Your task to perform on an android device: Clear the shopping cart on costco.com. Search for "razer naga" on costco.com, select the first entry, add it to the cart, then select checkout. Image 0: 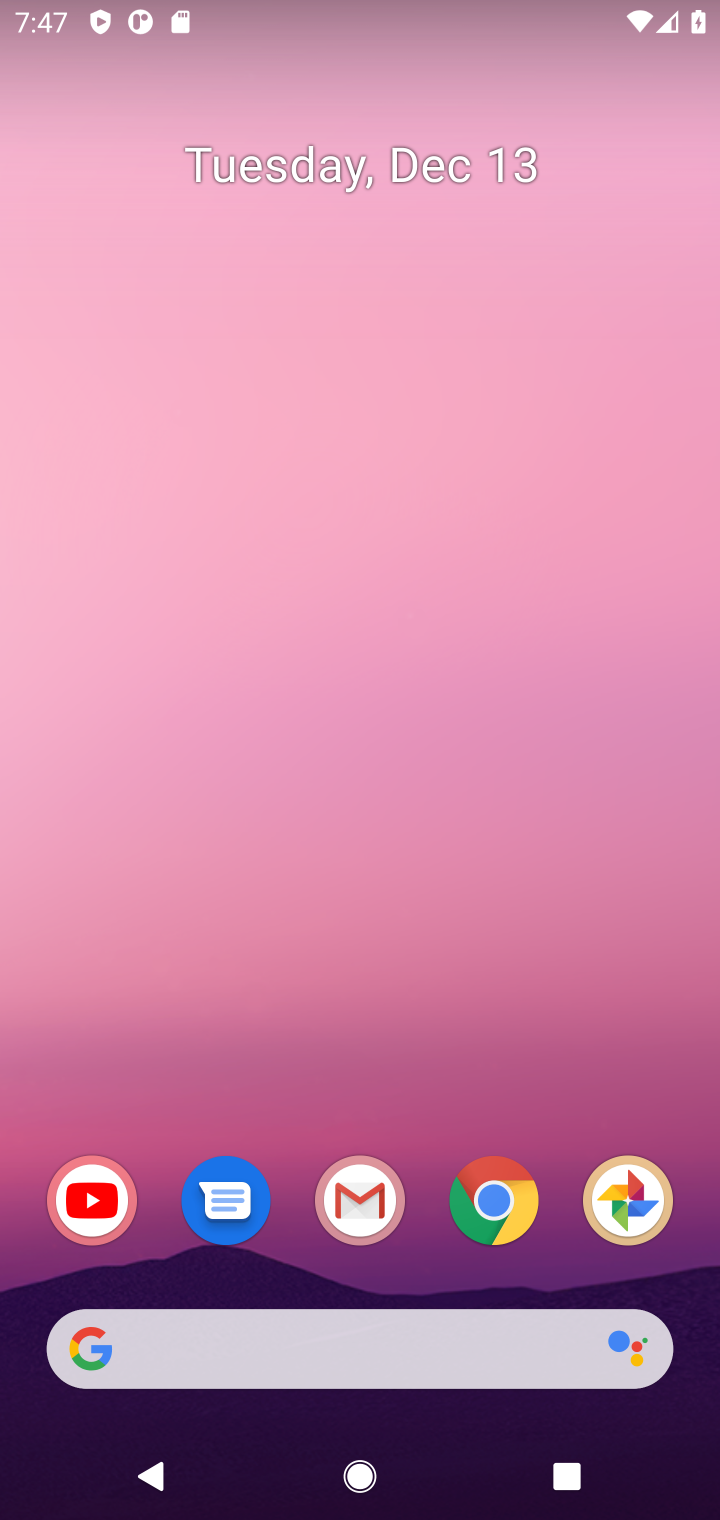
Step 0: click (324, 1317)
Your task to perform on an android device: Clear the shopping cart on costco.com. Search for "razer naga" on costco.com, select the first entry, add it to the cart, then select checkout. Image 1: 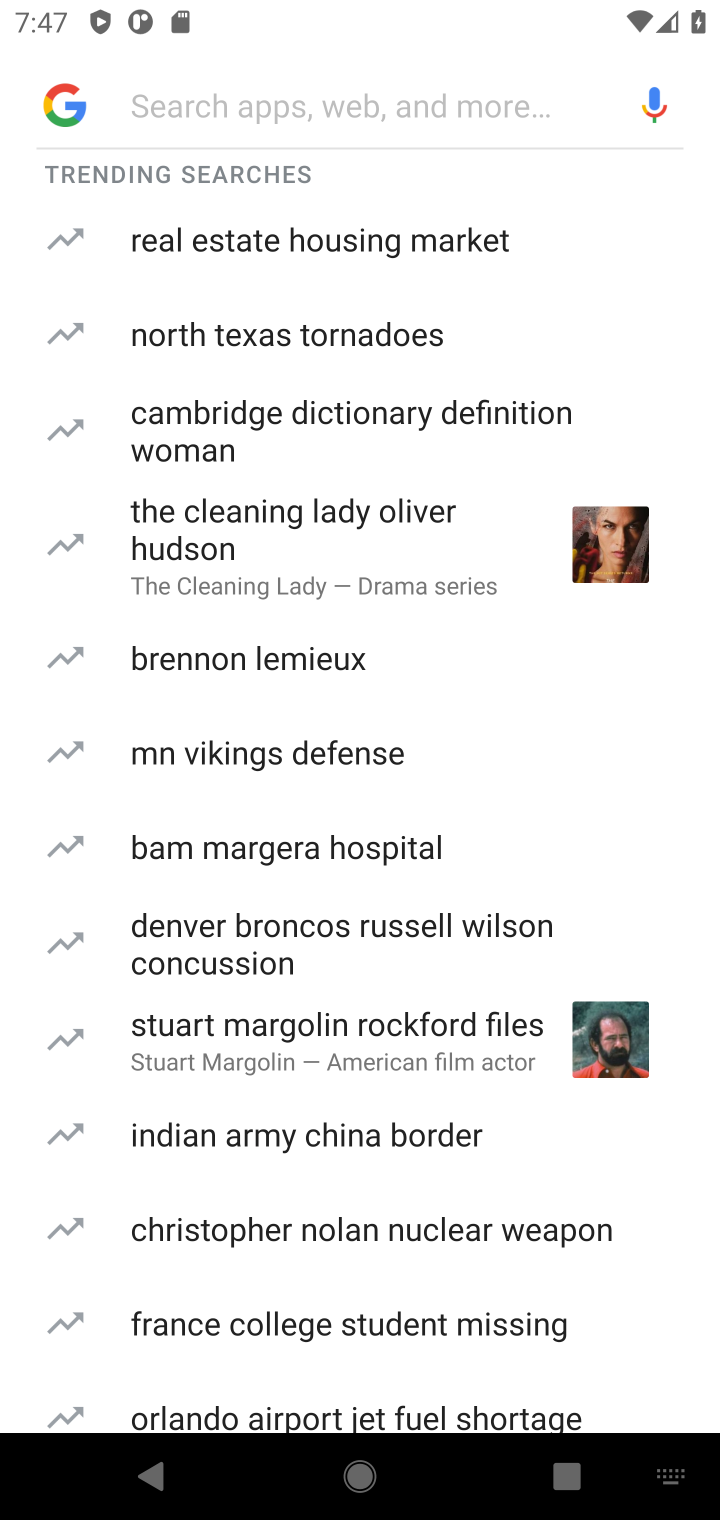
Step 1: type " costco.com"
Your task to perform on an android device: Clear the shopping cart on costco.com. Search for "razer naga" on costco.com, select the first entry, add it to the cart, then select checkout. Image 2: 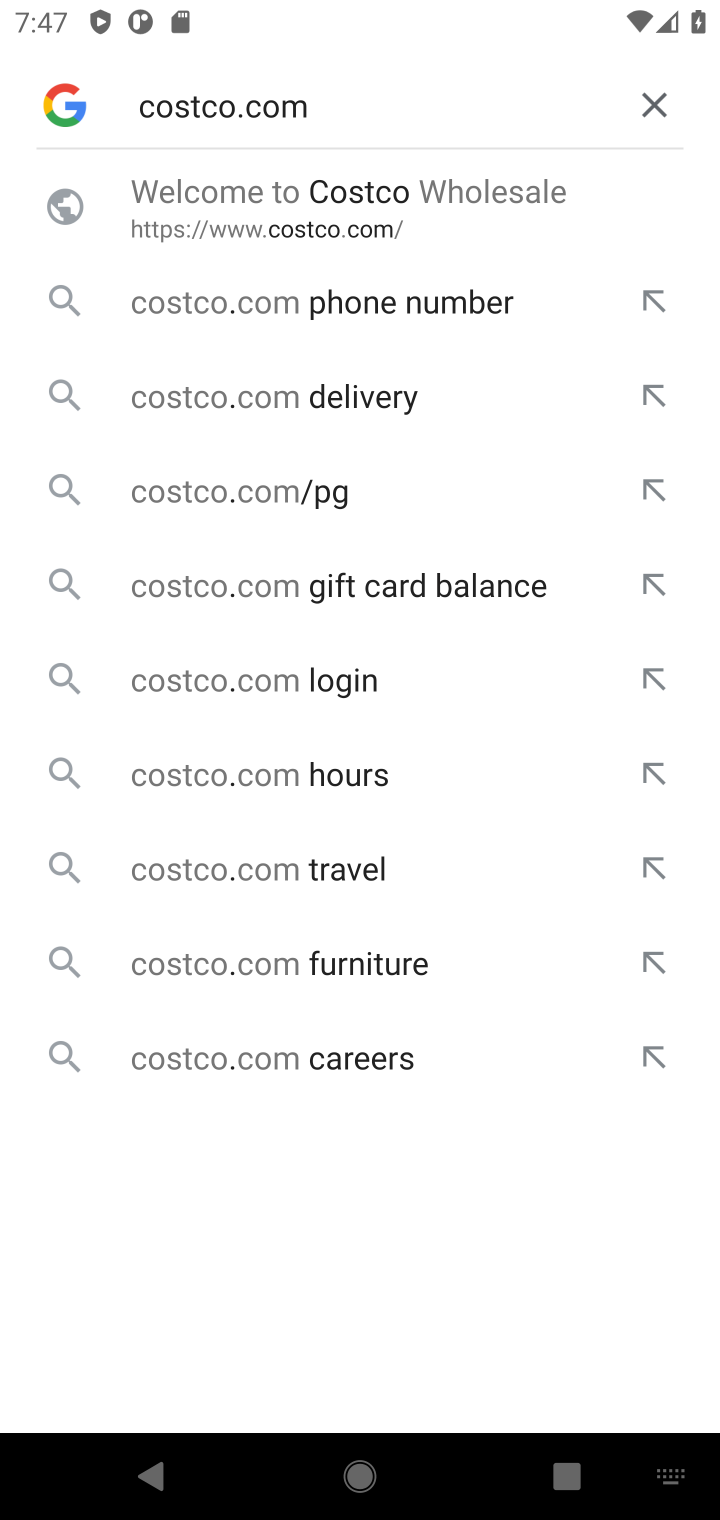
Step 2: click (328, 219)
Your task to perform on an android device: Clear the shopping cart on costco.com. Search for "razer naga" on costco.com, select the first entry, add it to the cart, then select checkout. Image 3: 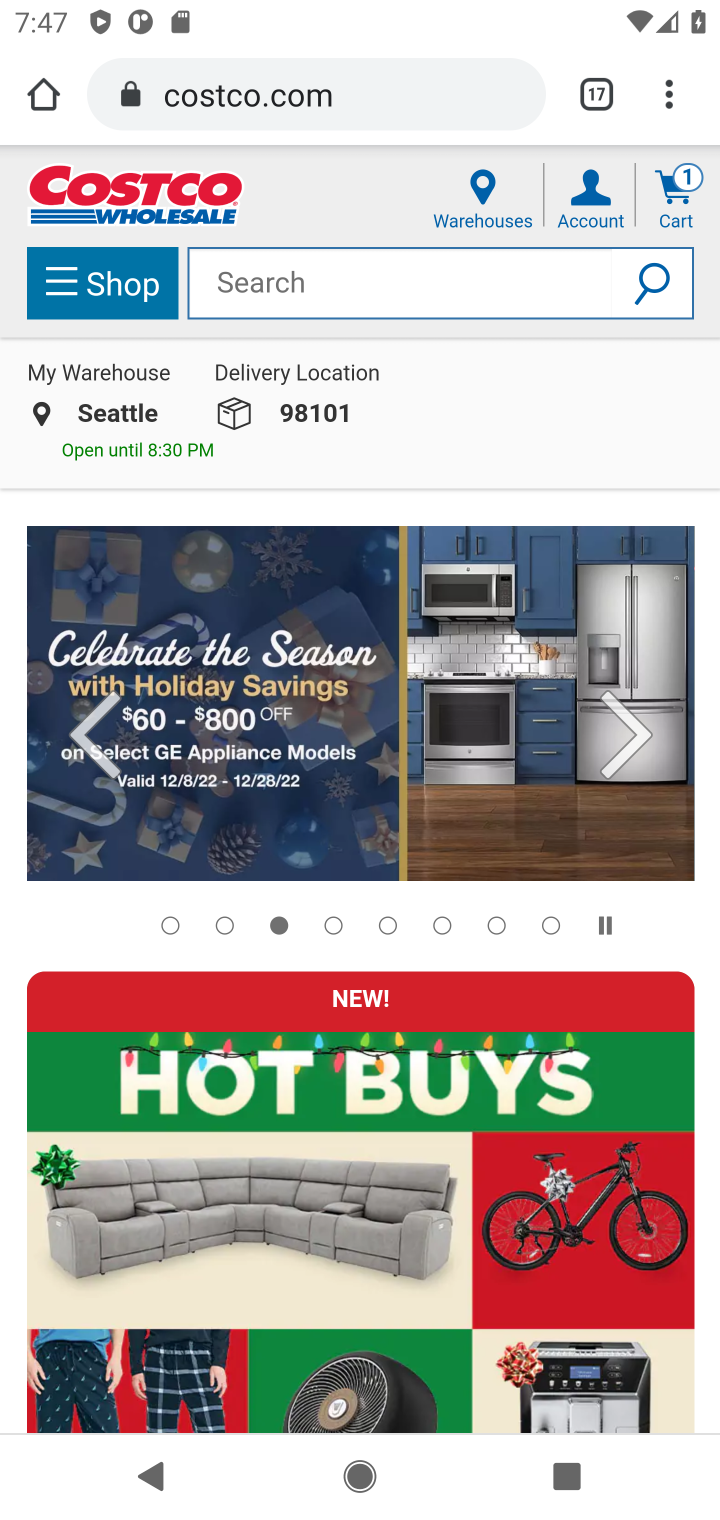
Step 3: click (459, 277)
Your task to perform on an android device: Clear the shopping cart on costco.com. Search for "razer naga" on costco.com, select the first entry, add it to the cart, then select checkout. Image 4: 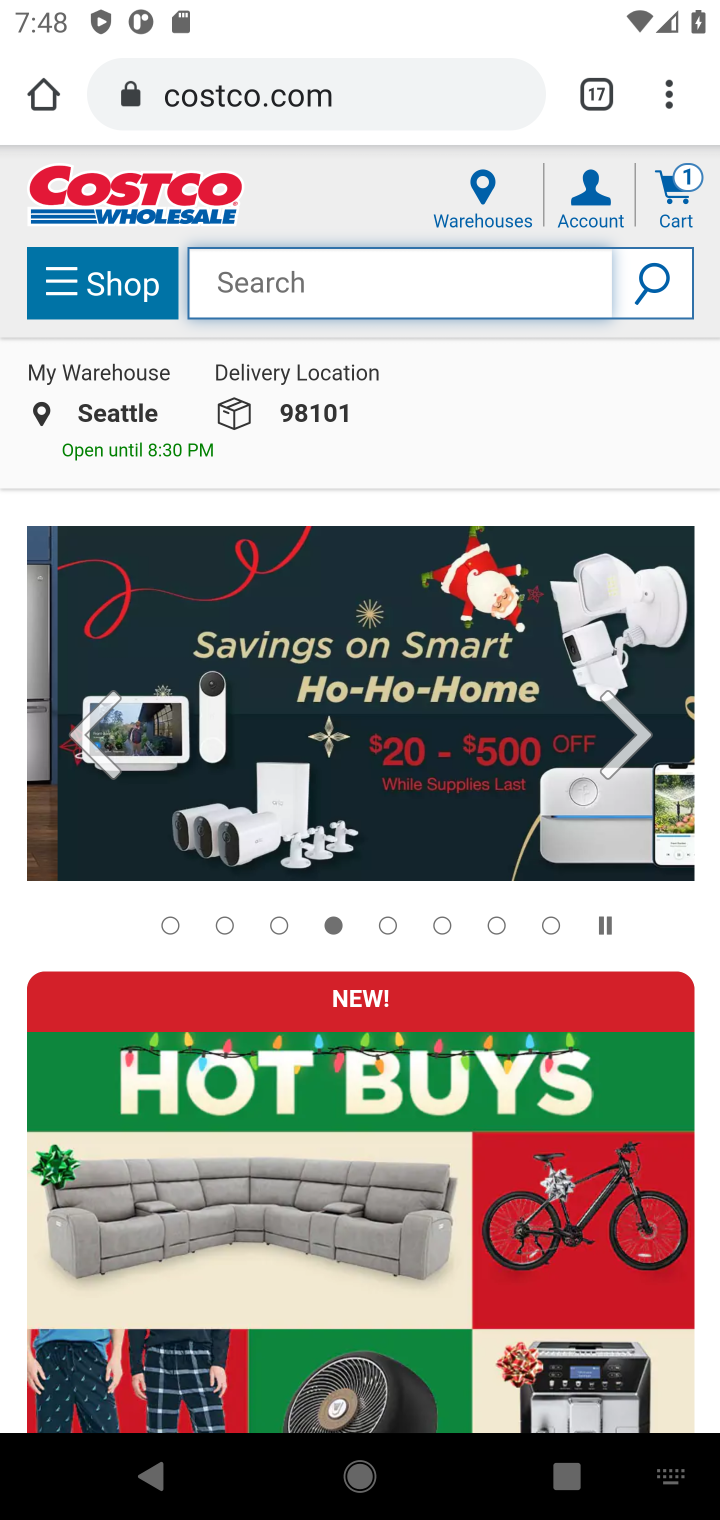
Step 4: type "razer naga"
Your task to perform on an android device: Clear the shopping cart on costco.com. Search for "razer naga" on costco.com, select the first entry, add it to the cart, then select checkout. Image 5: 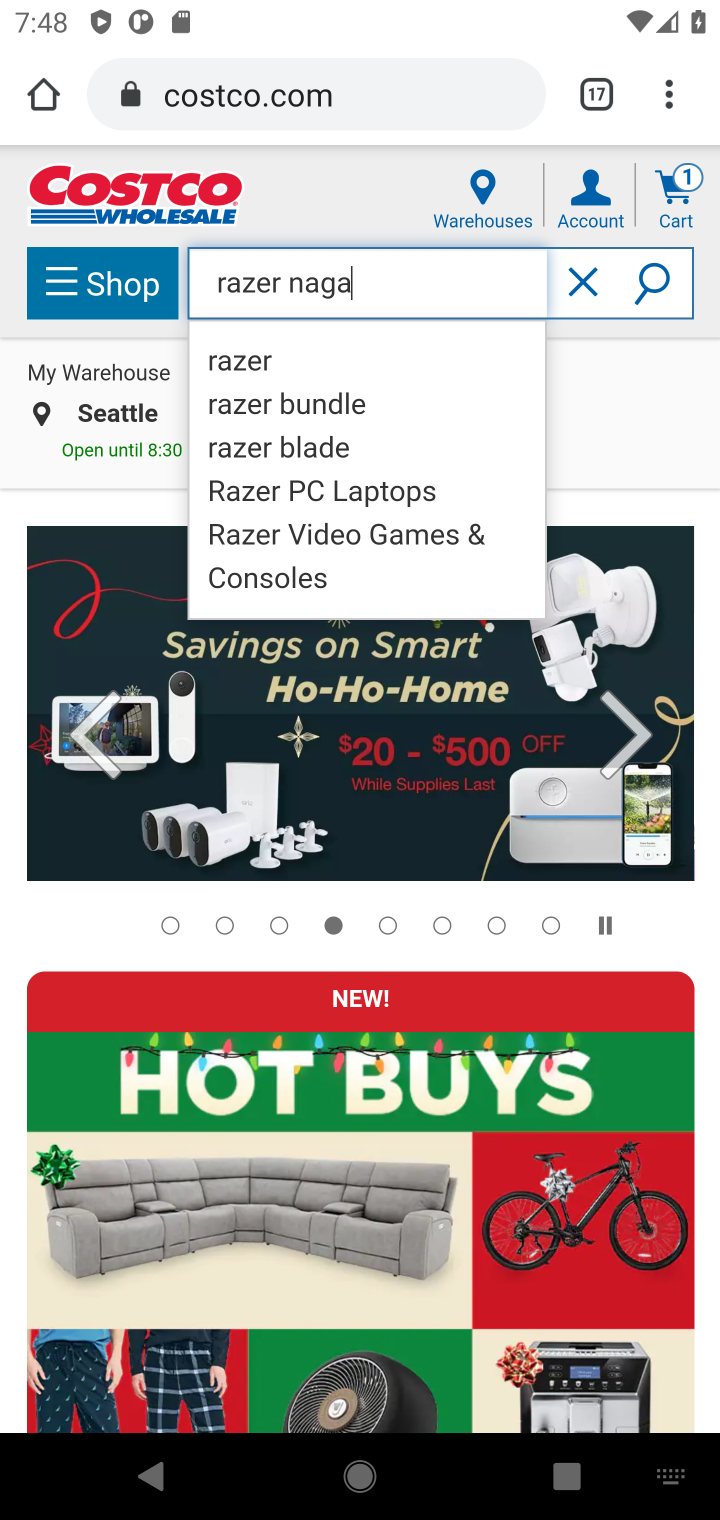
Step 5: click (657, 266)
Your task to perform on an android device: Clear the shopping cart on costco.com. Search for "razer naga" on costco.com, select the first entry, add it to the cart, then select checkout. Image 6: 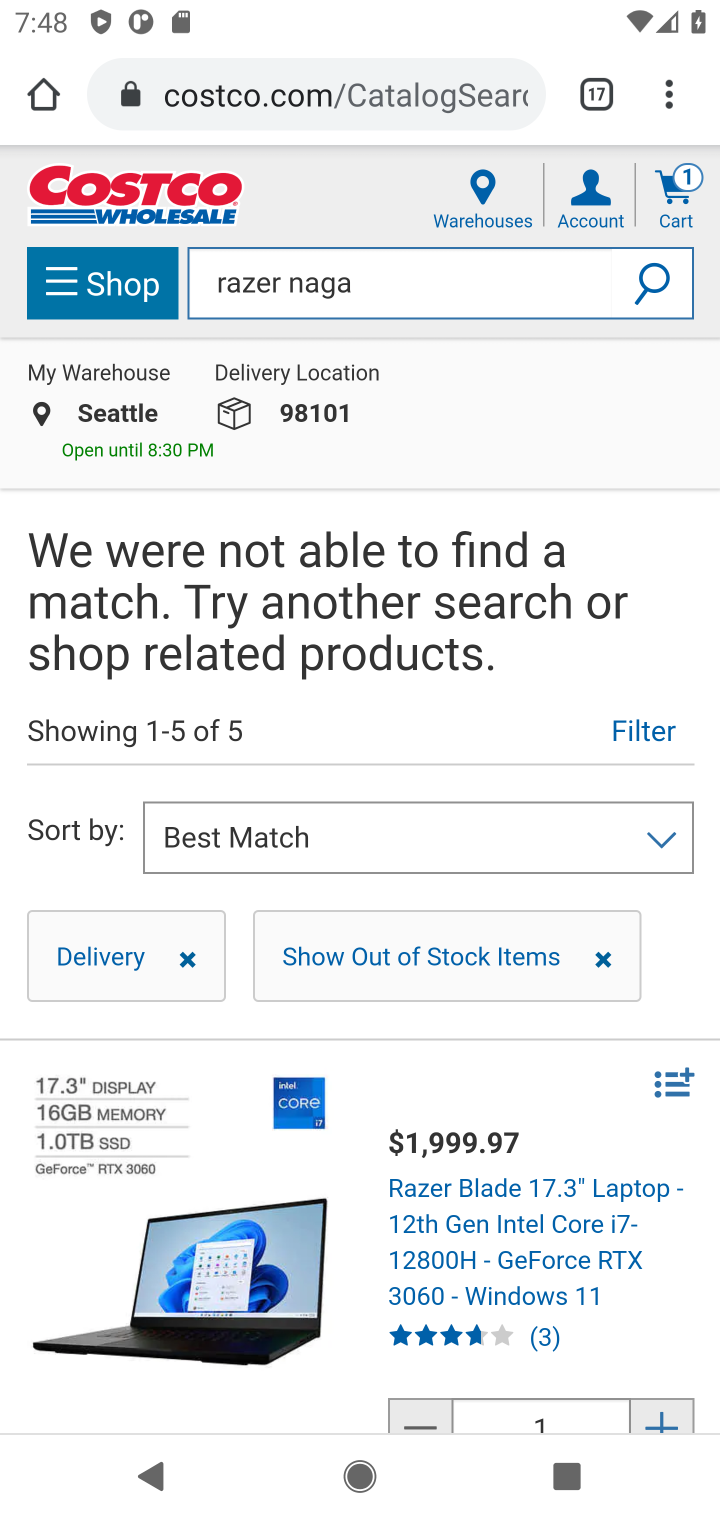
Step 6: click (446, 1223)
Your task to perform on an android device: Clear the shopping cart on costco.com. Search for "razer naga" on costco.com, select the first entry, add it to the cart, then select checkout. Image 7: 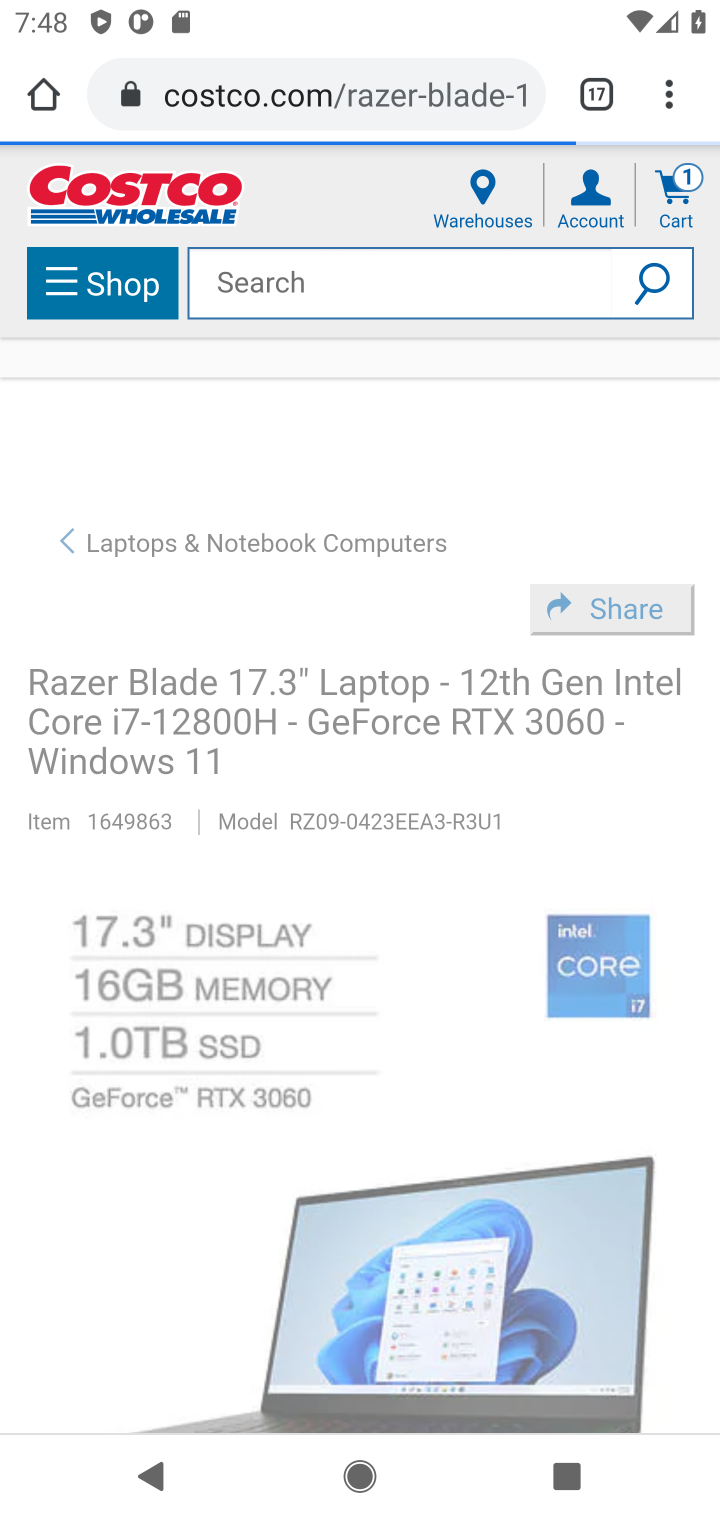
Step 7: drag from (342, 1174) to (308, 686)
Your task to perform on an android device: Clear the shopping cart on costco.com. Search for "razer naga" on costco.com, select the first entry, add it to the cart, then select checkout. Image 8: 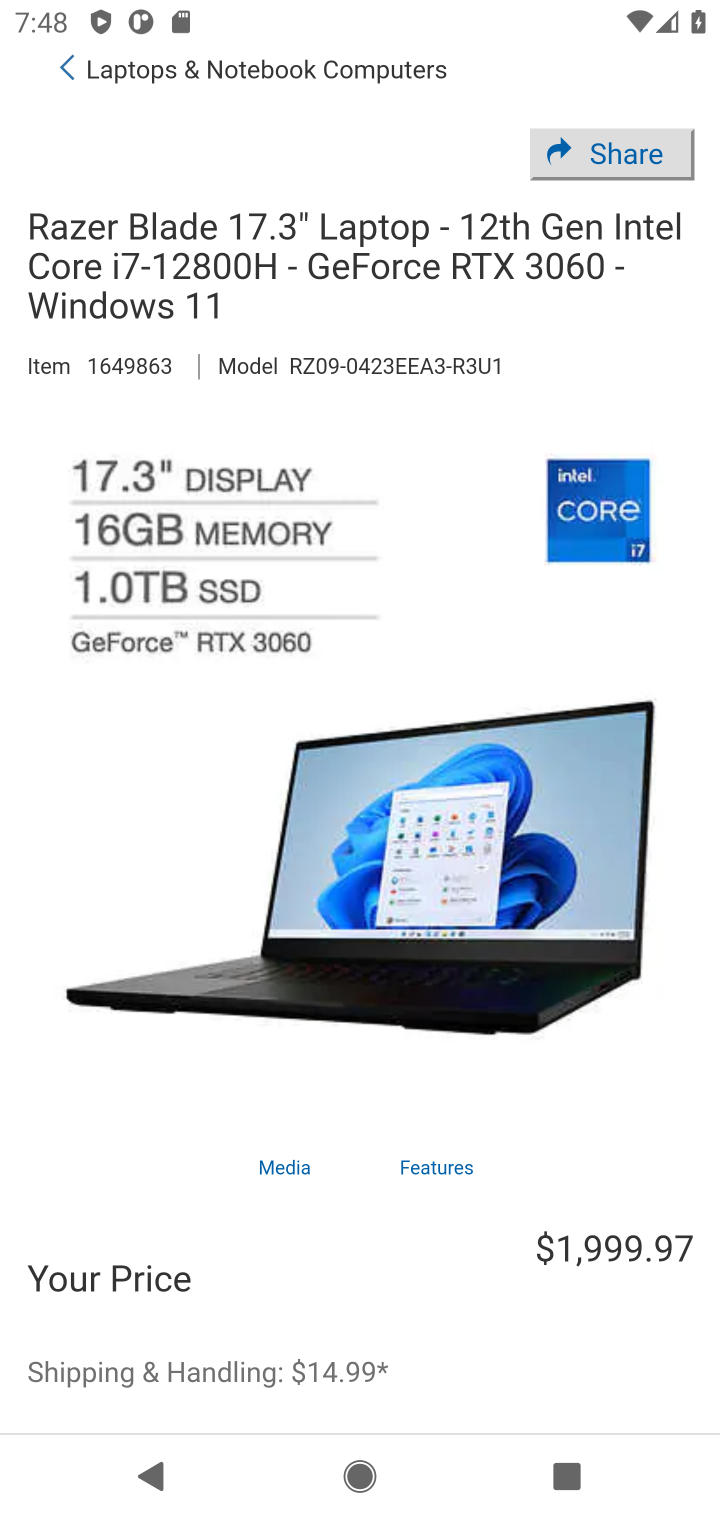
Step 8: drag from (298, 943) to (298, 571)
Your task to perform on an android device: Clear the shopping cart on costco.com. Search for "razer naga" on costco.com, select the first entry, add it to the cart, then select checkout. Image 9: 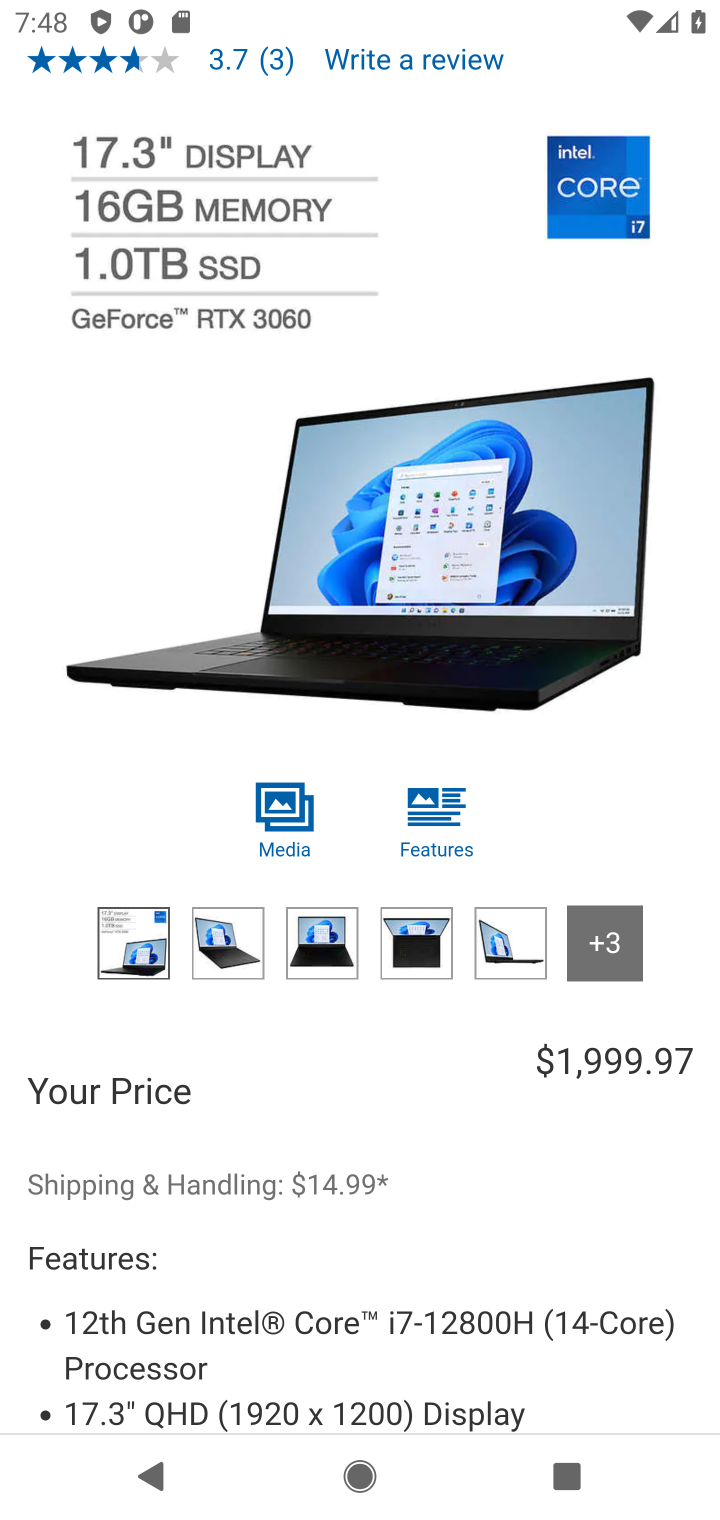
Step 9: click (441, 577)
Your task to perform on an android device: Clear the shopping cart on costco.com. Search for "razer naga" on costco.com, select the first entry, add it to the cart, then select checkout. Image 10: 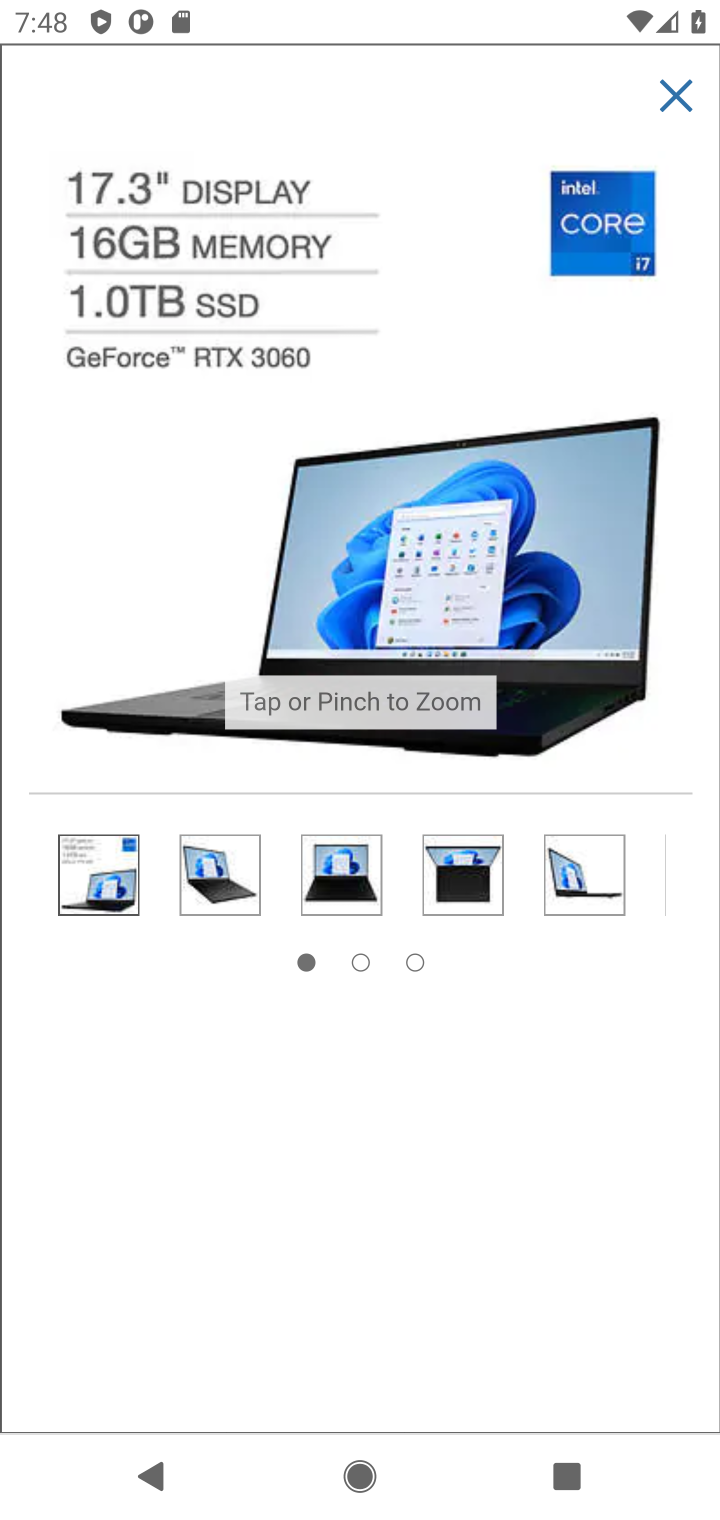
Step 10: click (683, 80)
Your task to perform on an android device: Clear the shopping cart on costco.com. Search for "razer naga" on costco.com, select the first entry, add it to the cart, then select checkout. Image 11: 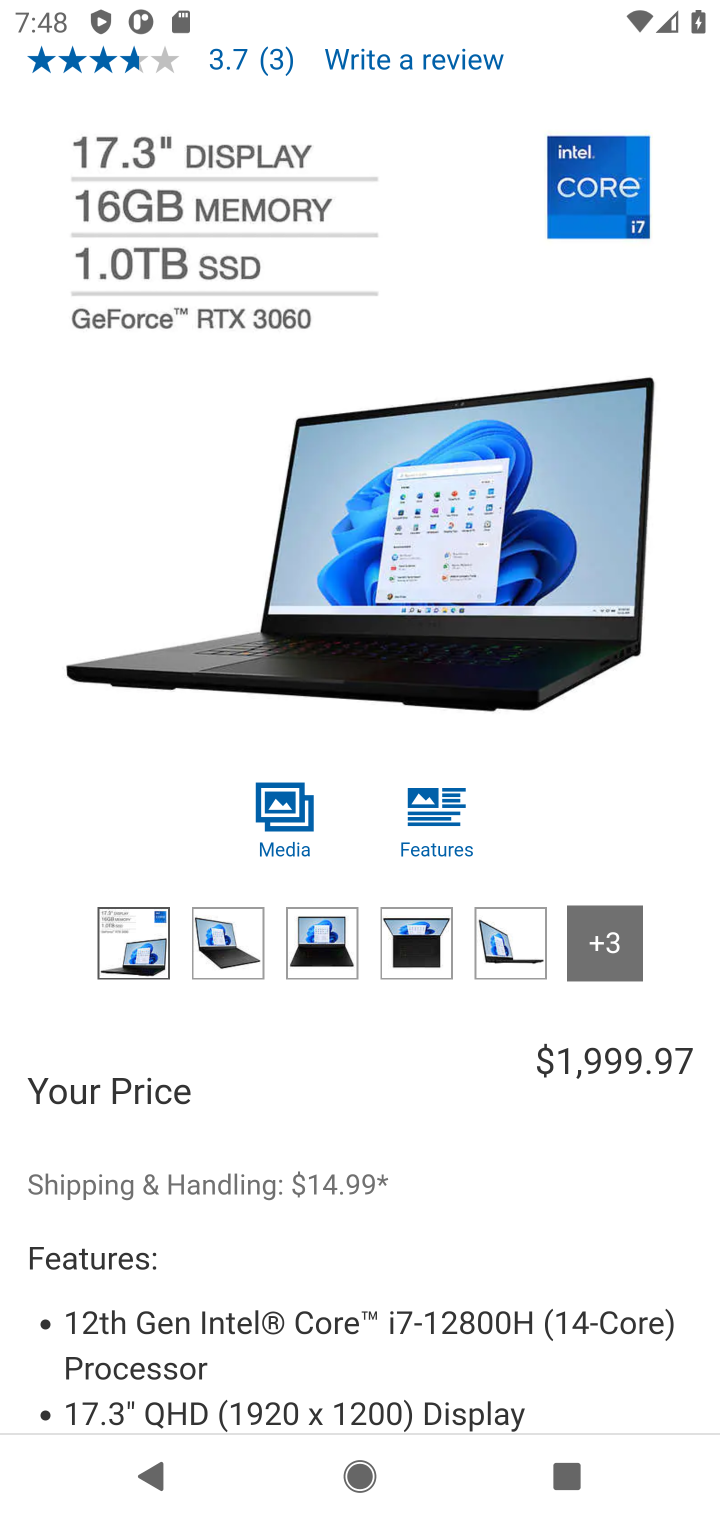
Step 11: drag from (377, 751) to (335, 585)
Your task to perform on an android device: Clear the shopping cart on costco.com. Search for "razer naga" on costco.com, select the first entry, add it to the cart, then select checkout. Image 12: 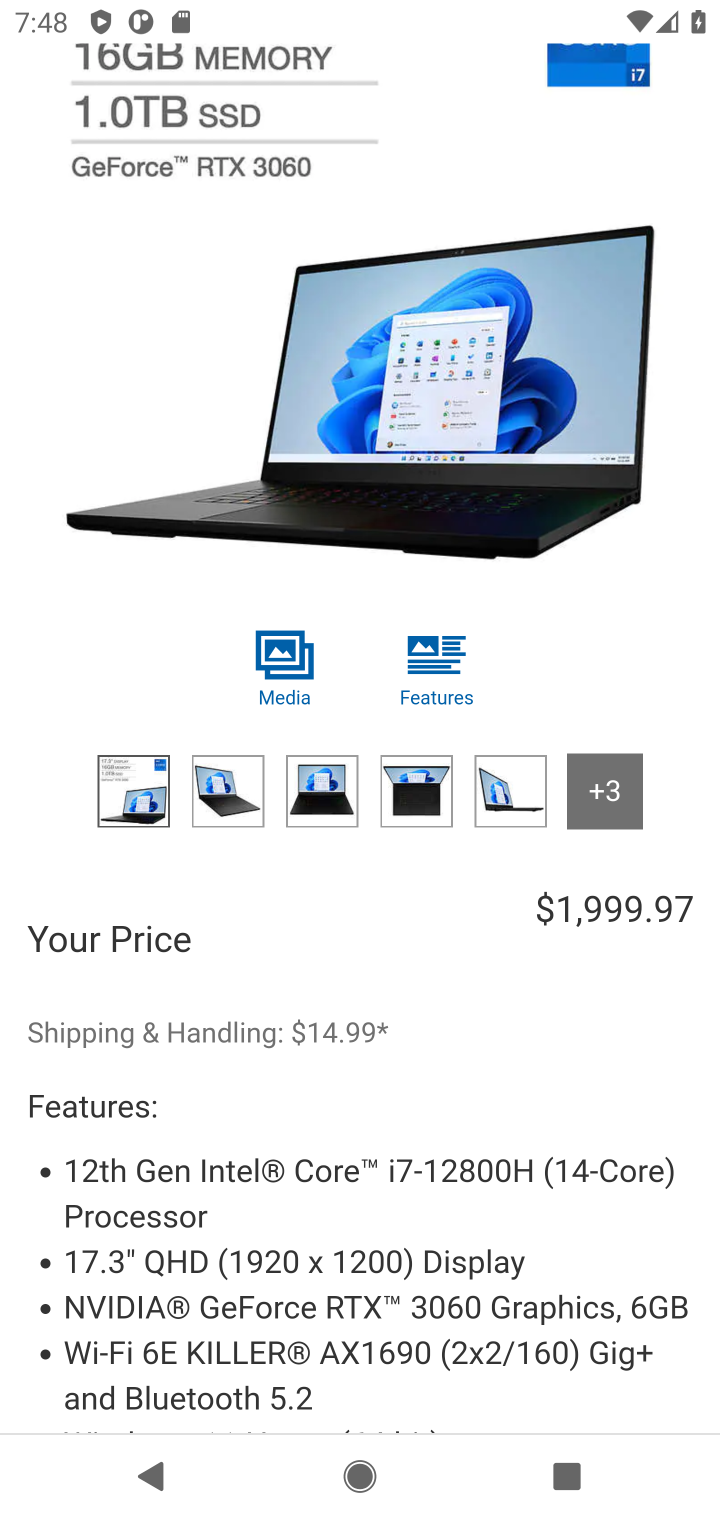
Step 12: drag from (439, 1248) to (370, 710)
Your task to perform on an android device: Clear the shopping cart on costco.com. Search for "razer naga" on costco.com, select the first entry, add it to the cart, then select checkout. Image 13: 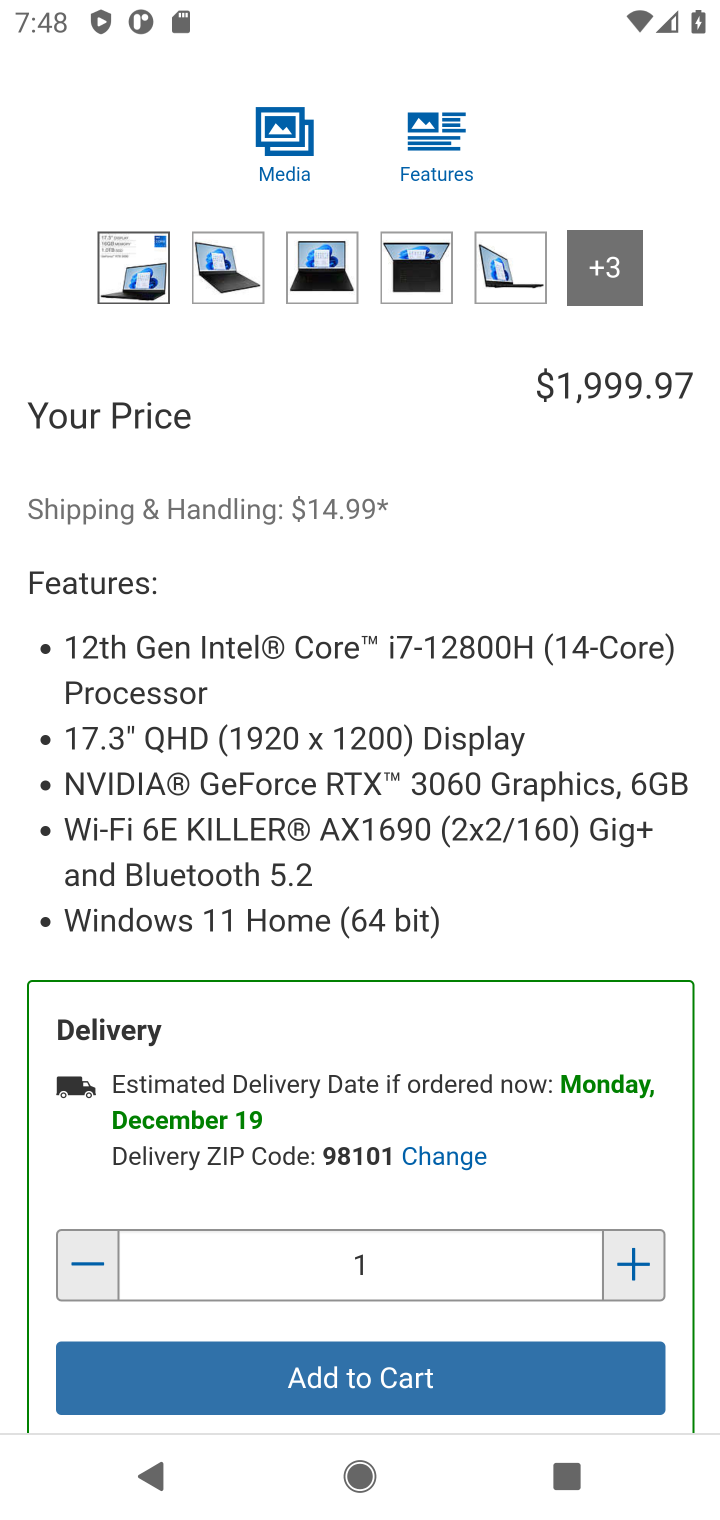
Step 13: drag from (453, 1024) to (427, 686)
Your task to perform on an android device: Clear the shopping cart on costco.com. Search for "razer naga" on costco.com, select the first entry, add it to the cart, then select checkout. Image 14: 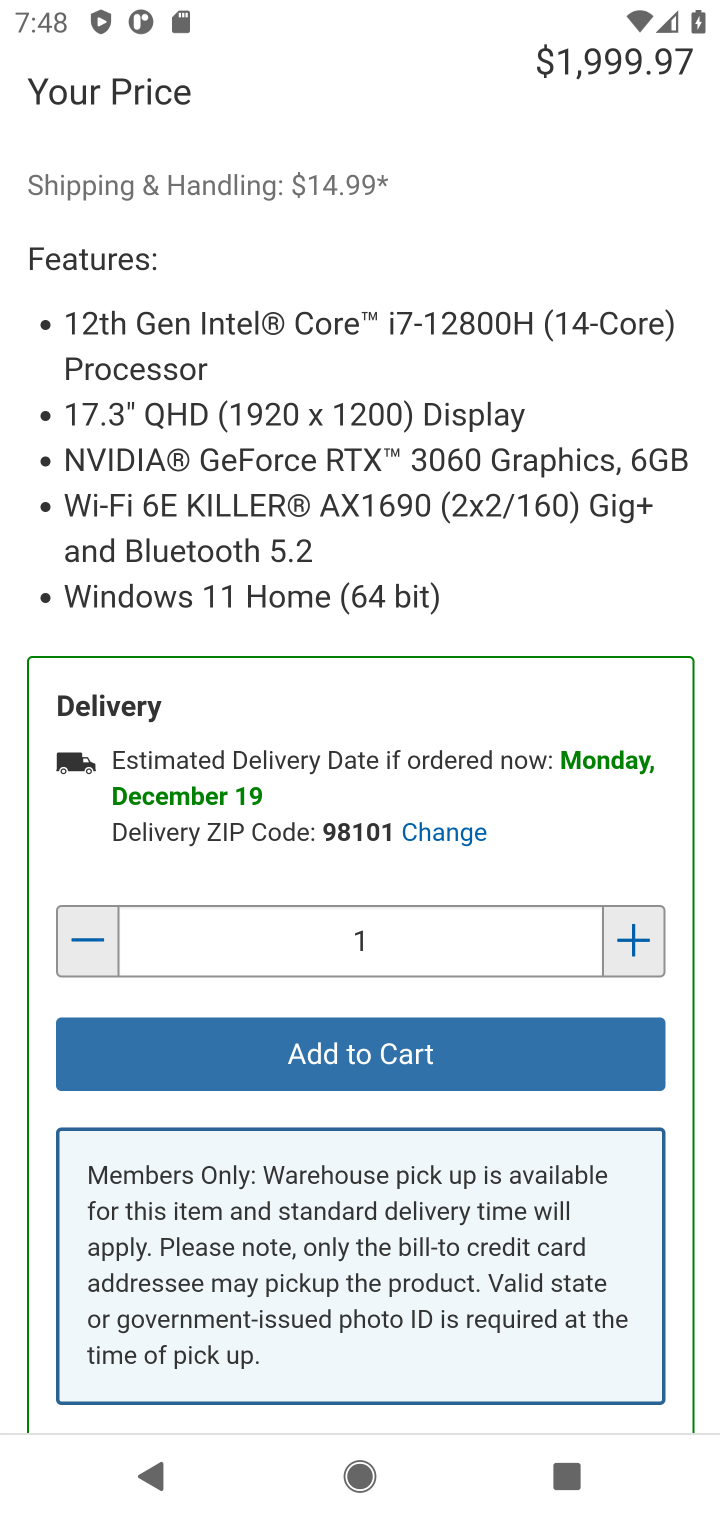
Step 14: click (355, 1079)
Your task to perform on an android device: Clear the shopping cart on costco.com. Search for "razer naga" on costco.com, select the first entry, add it to the cart, then select checkout. Image 15: 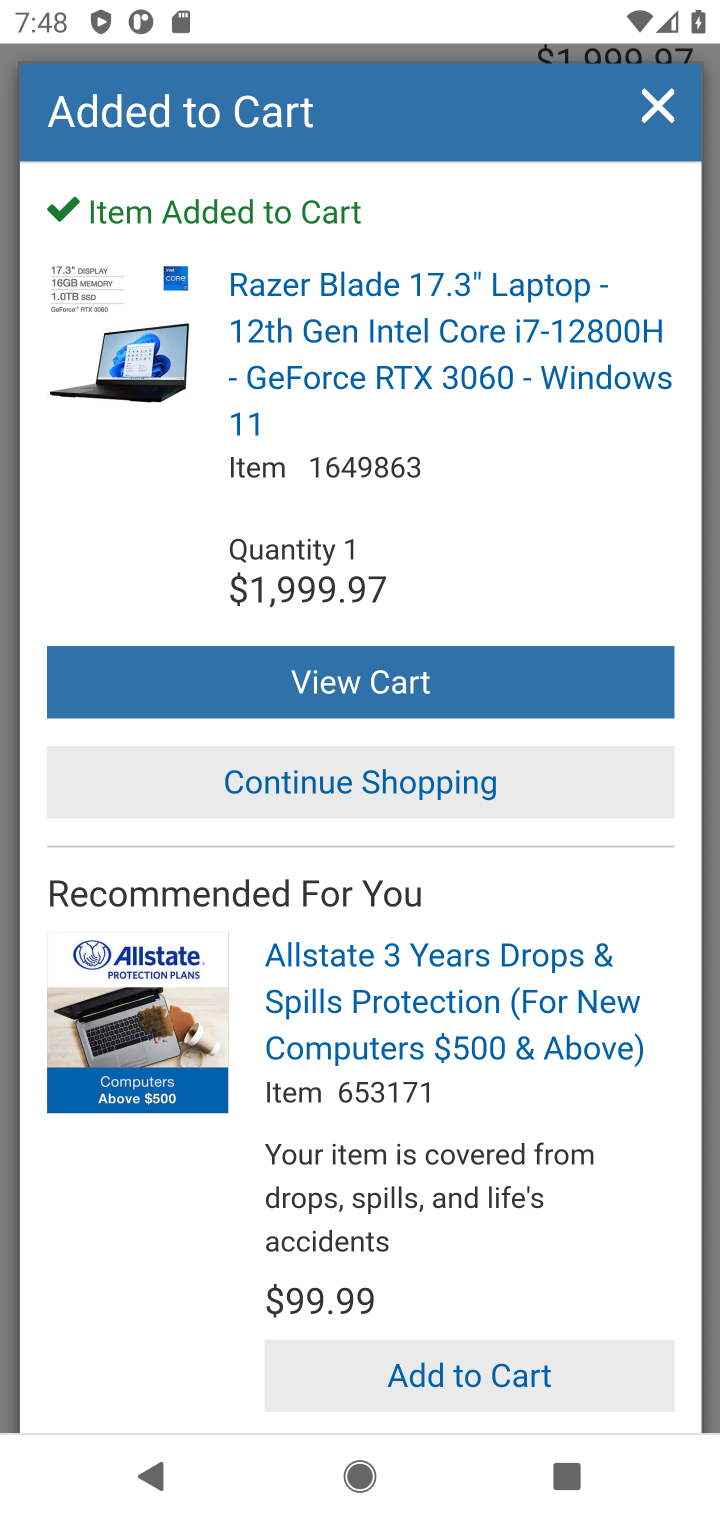
Step 15: click (344, 686)
Your task to perform on an android device: Clear the shopping cart on costco.com. Search for "razer naga" on costco.com, select the first entry, add it to the cart, then select checkout. Image 16: 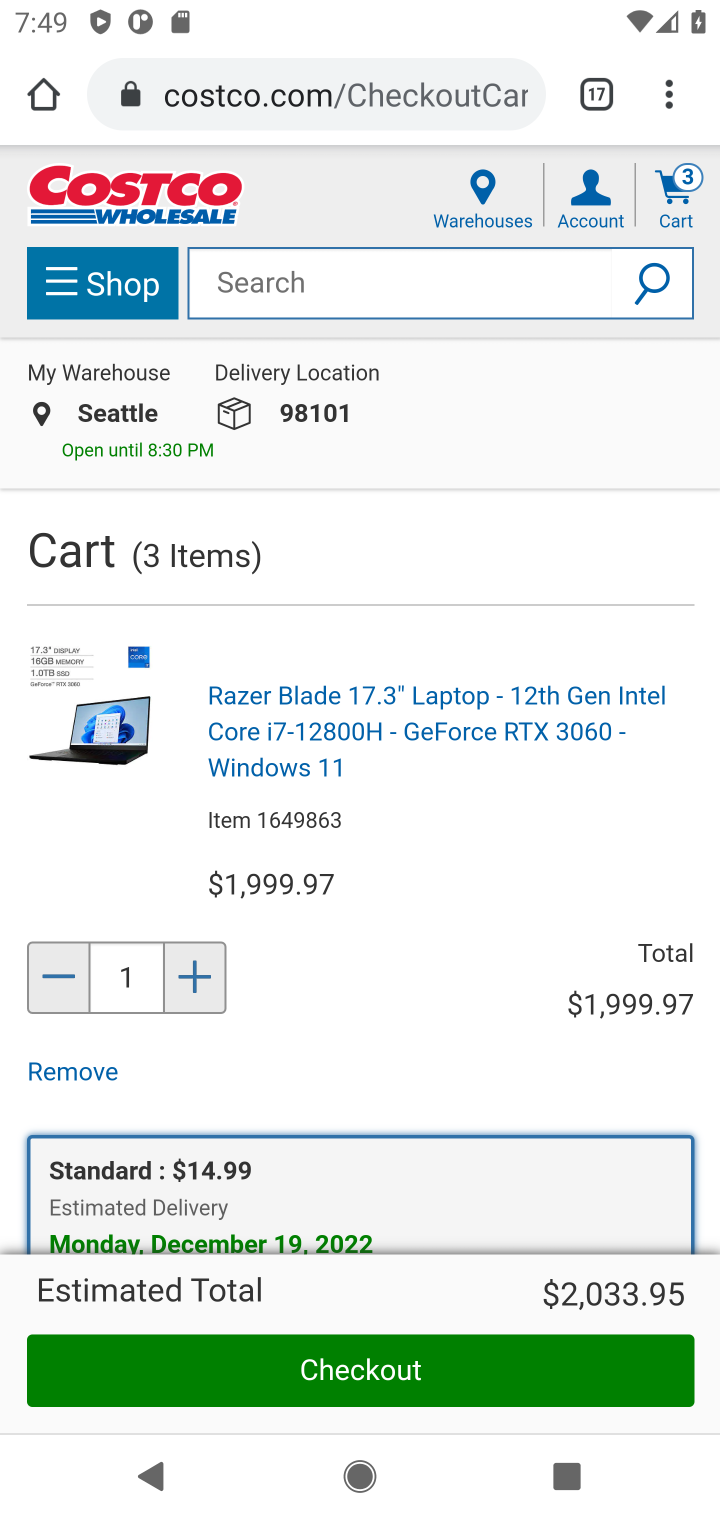
Step 16: click (678, 189)
Your task to perform on an android device: Clear the shopping cart on costco.com. Search for "razer naga" on costco.com, select the first entry, add it to the cart, then select checkout. Image 17: 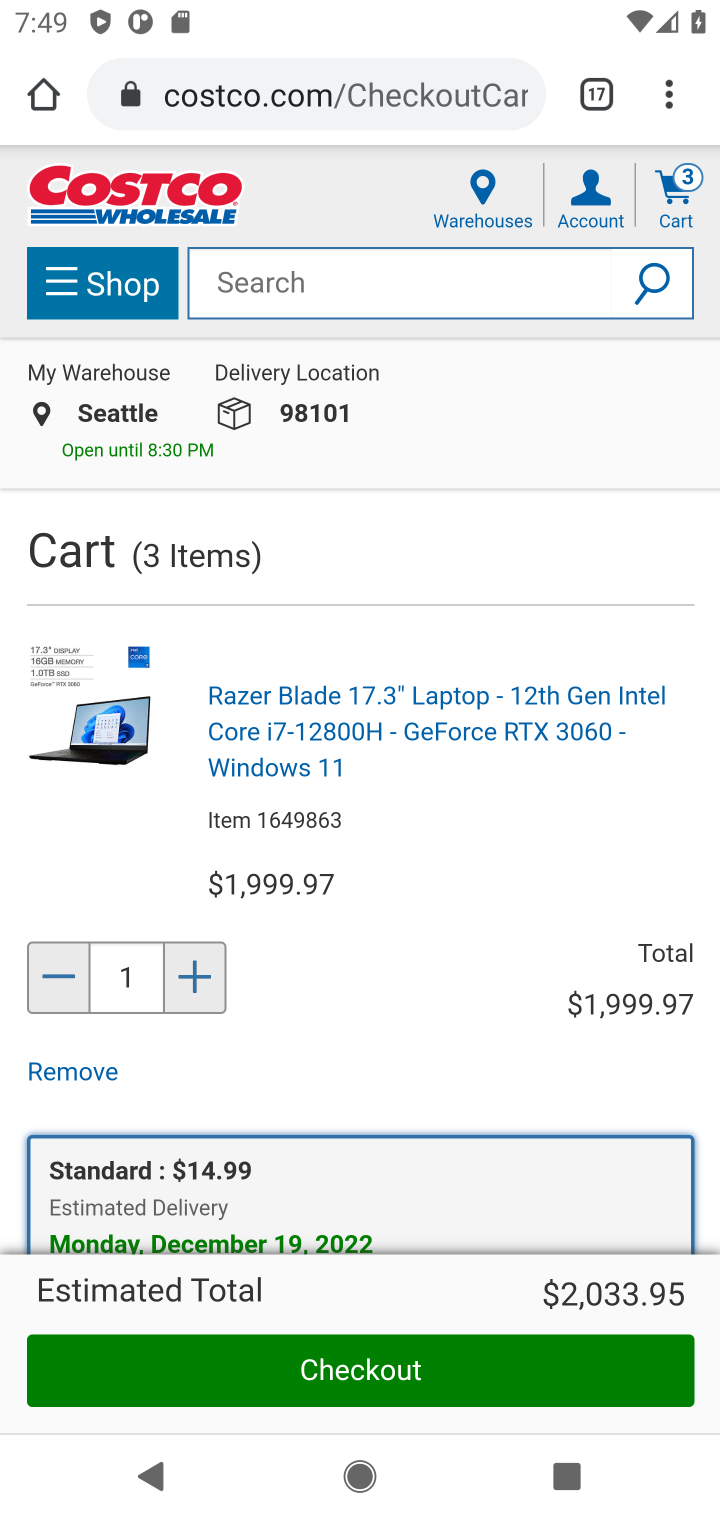
Step 17: click (359, 1368)
Your task to perform on an android device: Clear the shopping cart on costco.com. Search for "razer naga" on costco.com, select the first entry, add it to the cart, then select checkout. Image 18: 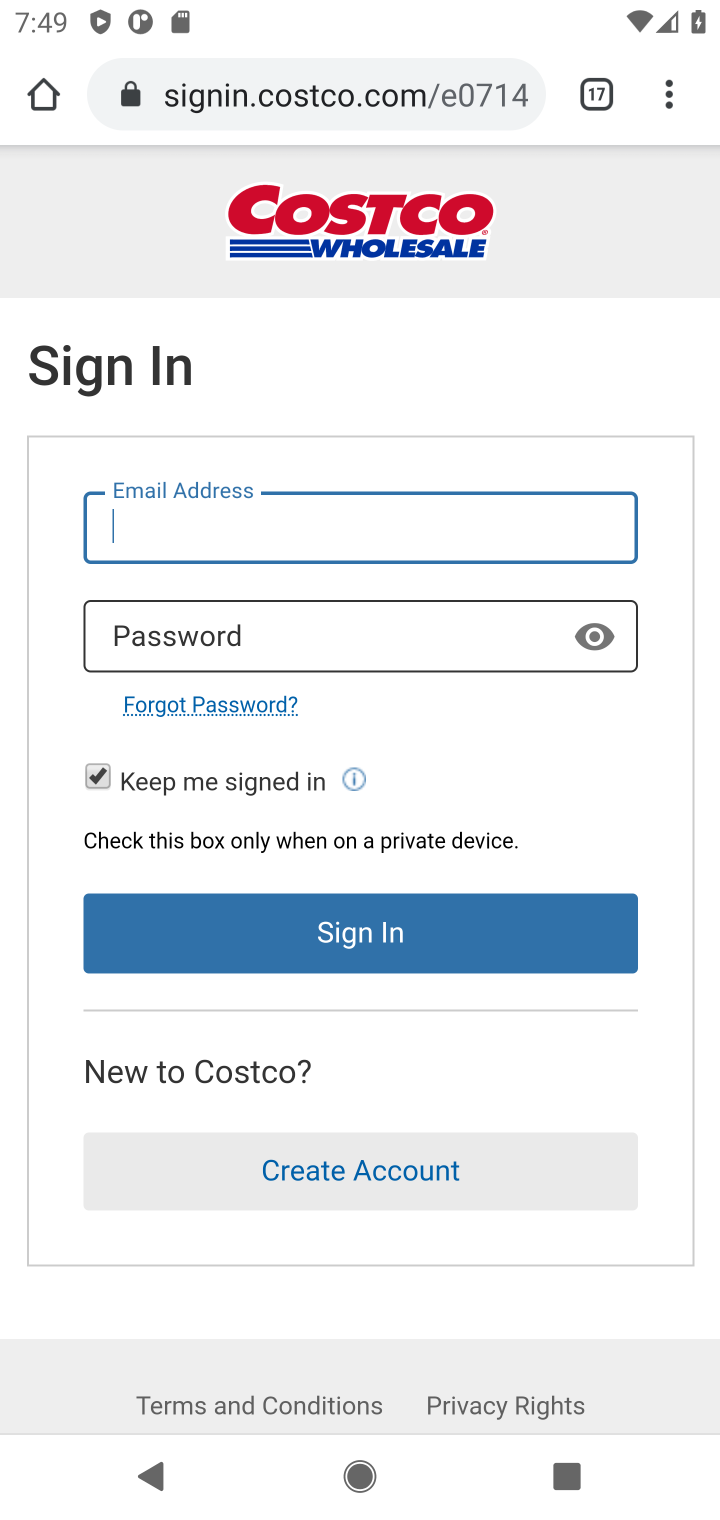
Step 18: task complete